Your task to perform on an android device: Search for "razer thresher" on costco, select the first entry, add it to the cart, then select checkout. Image 0: 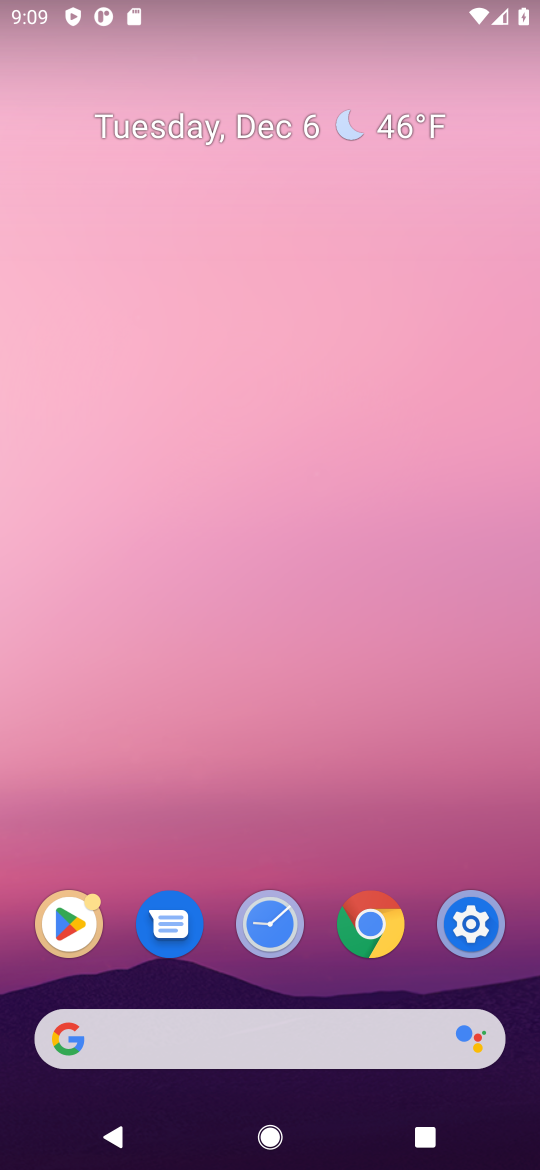
Step 0: click (305, 1032)
Your task to perform on an android device: Search for "razer thresher" on costco, select the first entry, add it to the cart, then select checkout. Image 1: 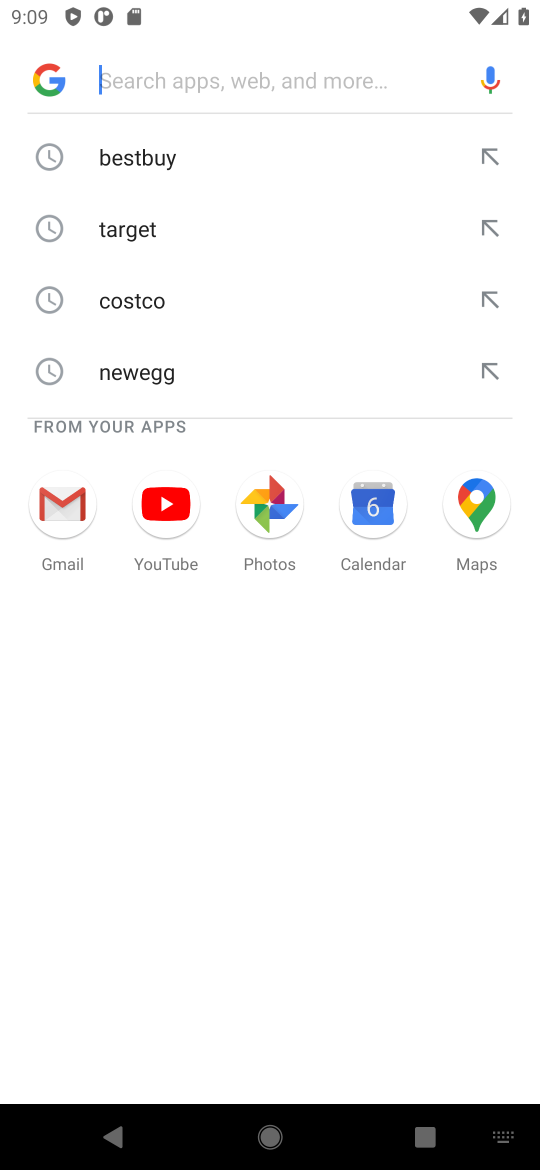
Step 1: click (153, 322)
Your task to perform on an android device: Search for "razer thresher" on costco, select the first entry, add it to the cart, then select checkout. Image 2: 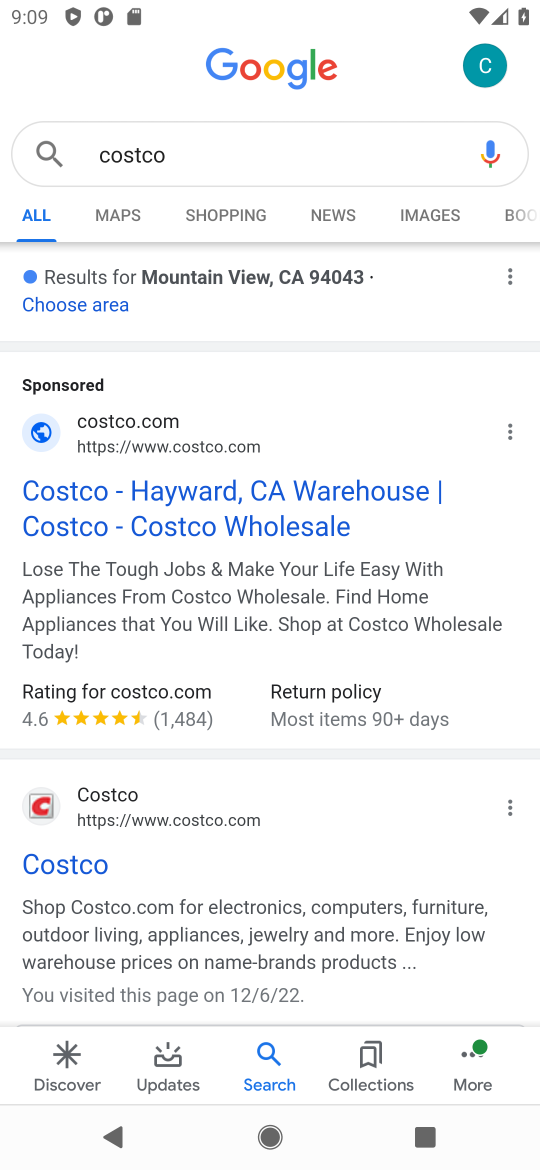
Step 2: click (165, 482)
Your task to perform on an android device: Search for "razer thresher" on costco, select the first entry, add it to the cart, then select checkout. Image 3: 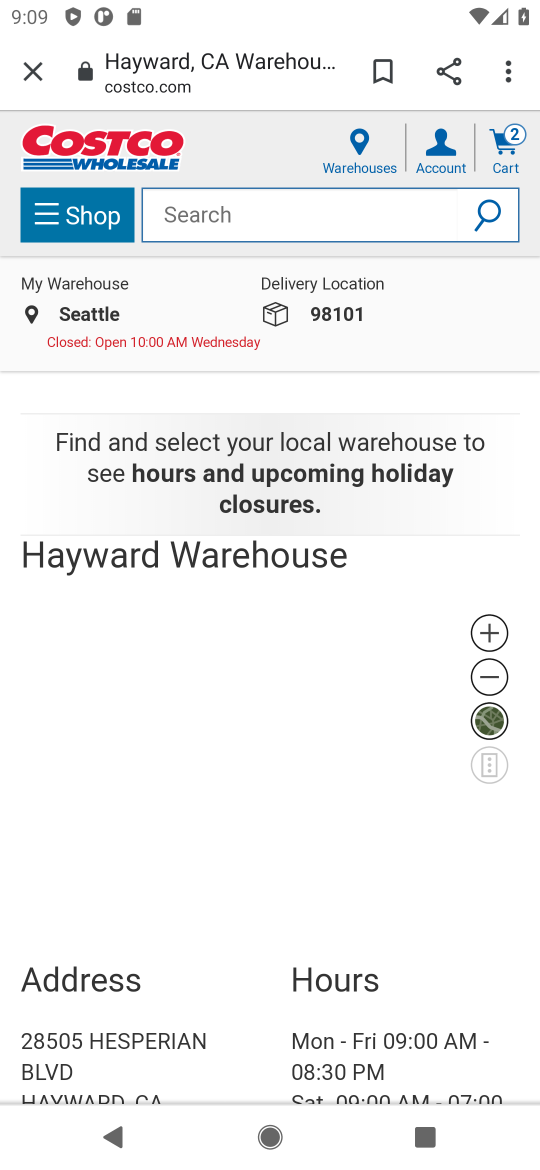
Step 3: click (240, 222)
Your task to perform on an android device: Search for "razer thresher" on costco, select the first entry, add it to the cart, then select checkout. Image 4: 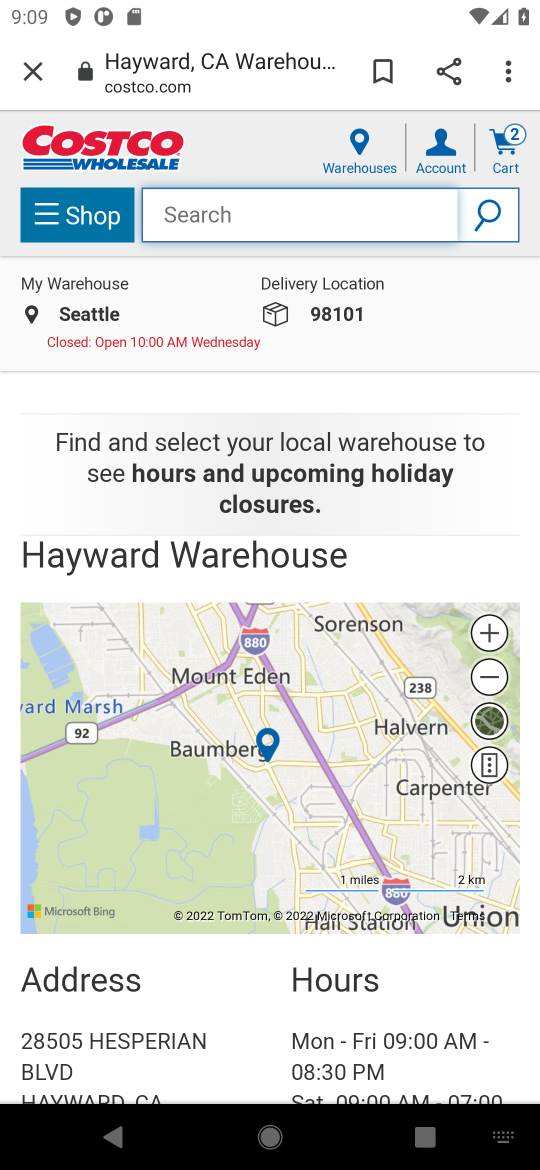
Step 4: type "razer threher"
Your task to perform on an android device: Search for "razer thresher" on costco, select the first entry, add it to the cart, then select checkout. Image 5: 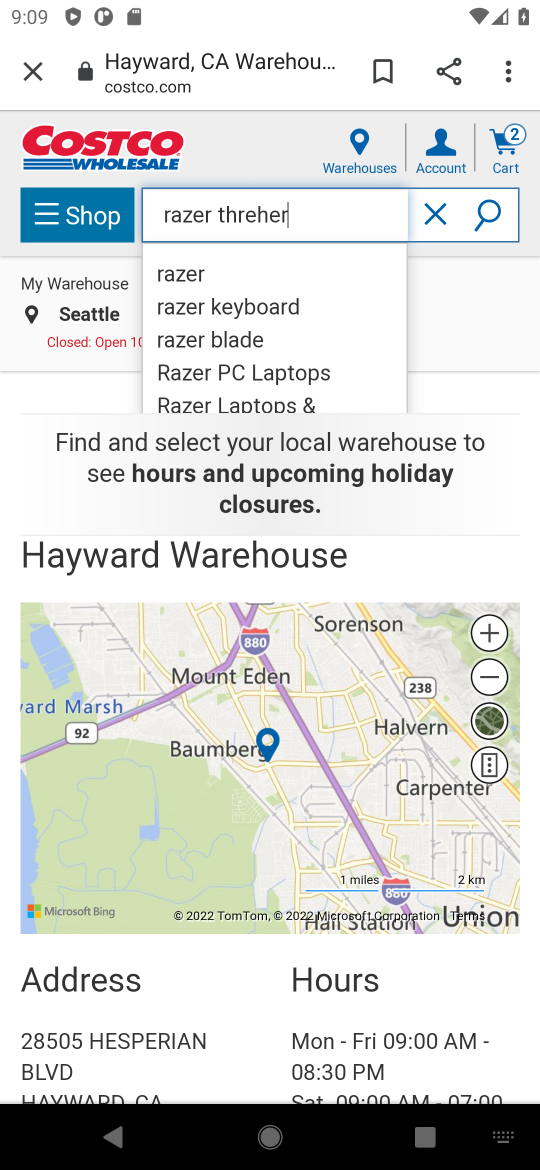
Step 5: click (490, 208)
Your task to perform on an android device: Search for "razer thresher" on costco, select the first entry, add it to the cart, then select checkout. Image 6: 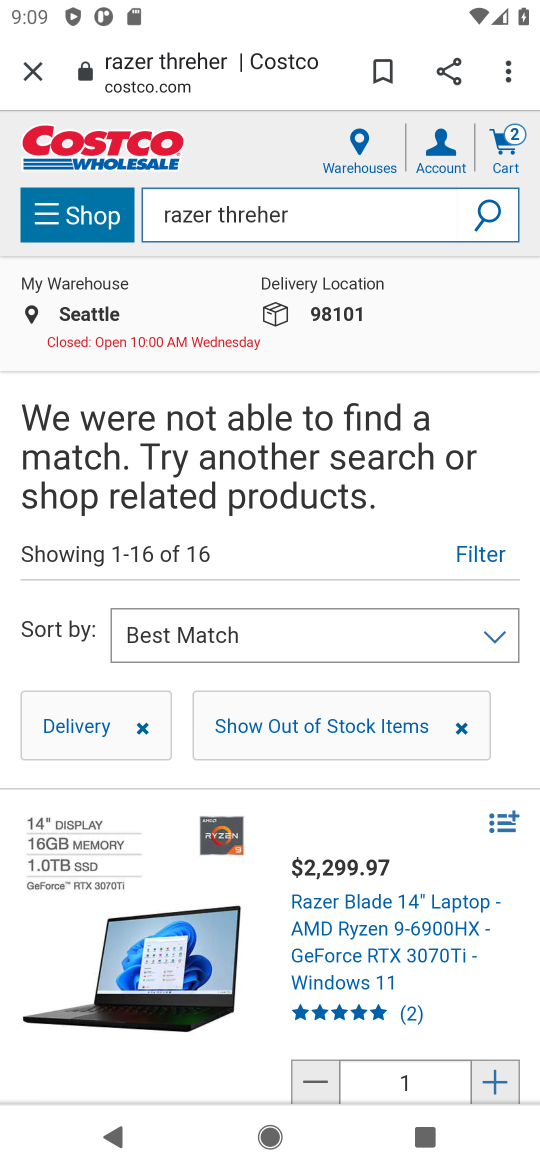
Step 6: drag from (210, 1072) to (238, 612)
Your task to perform on an android device: Search for "razer thresher" on costco, select the first entry, add it to the cart, then select checkout. Image 7: 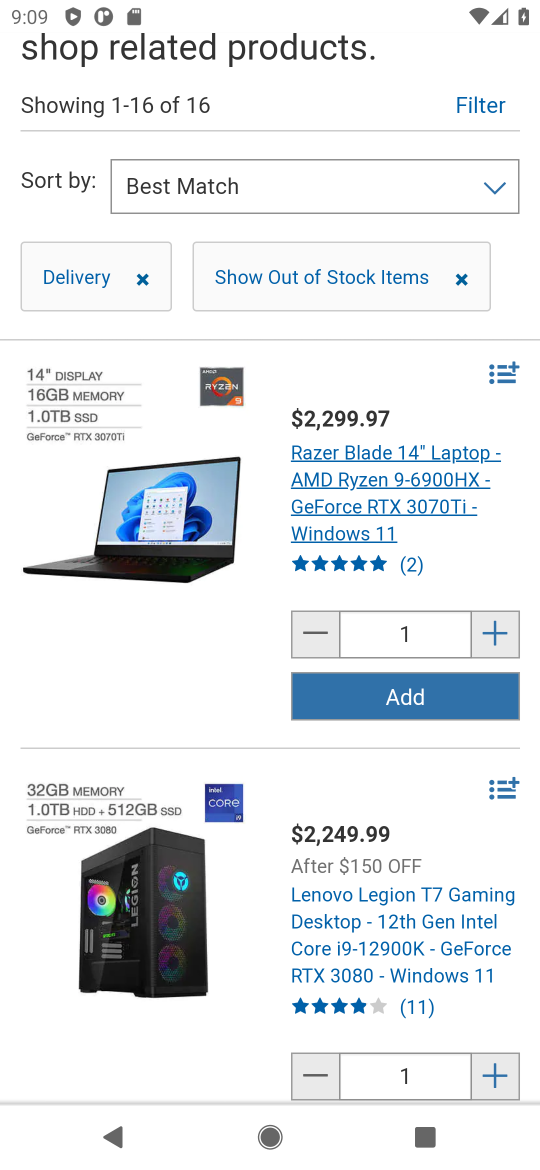
Step 7: click (359, 702)
Your task to perform on an android device: Search for "razer thresher" on costco, select the first entry, add it to the cart, then select checkout. Image 8: 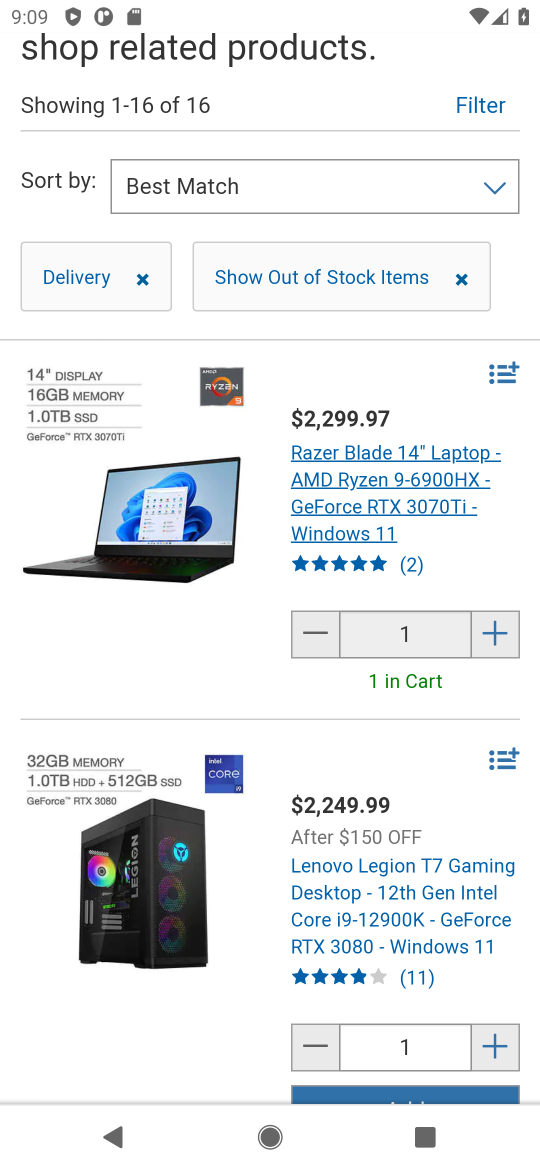
Step 8: task complete